Your task to perform on an android device: toggle wifi Image 0: 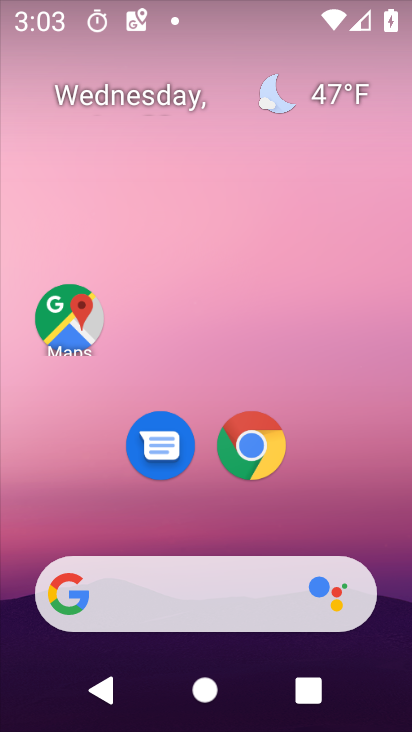
Step 0: drag from (366, 275) to (406, 5)
Your task to perform on an android device: toggle wifi Image 1: 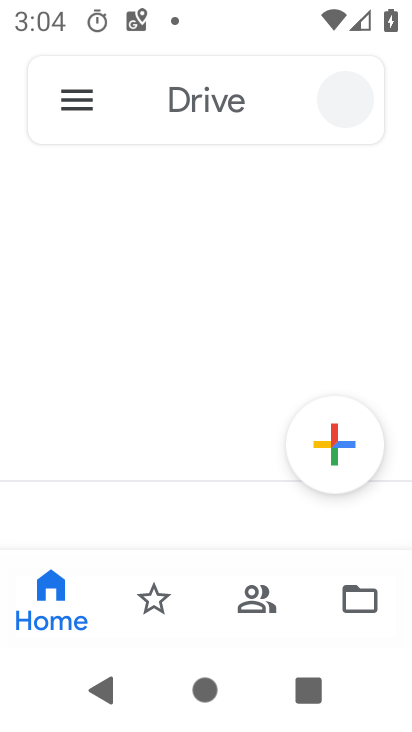
Step 1: press home button
Your task to perform on an android device: toggle wifi Image 2: 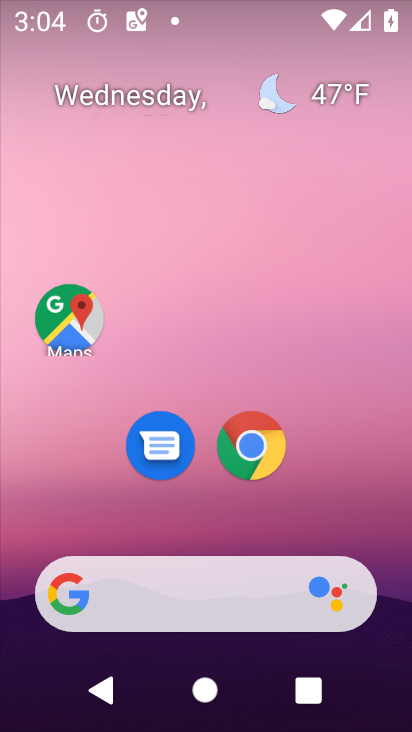
Step 2: drag from (347, 528) to (383, 3)
Your task to perform on an android device: toggle wifi Image 3: 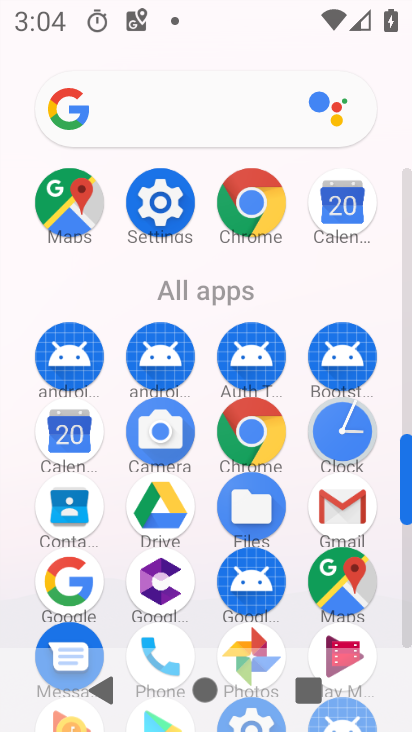
Step 3: click (164, 203)
Your task to perform on an android device: toggle wifi Image 4: 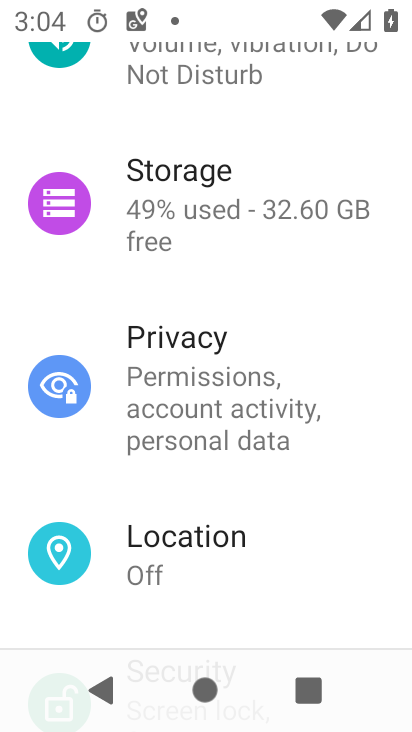
Step 4: drag from (323, 148) to (275, 451)
Your task to perform on an android device: toggle wifi Image 5: 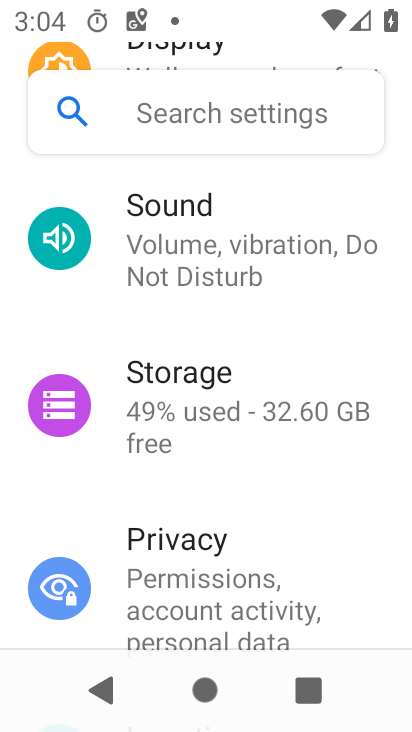
Step 5: drag from (305, 226) to (299, 553)
Your task to perform on an android device: toggle wifi Image 6: 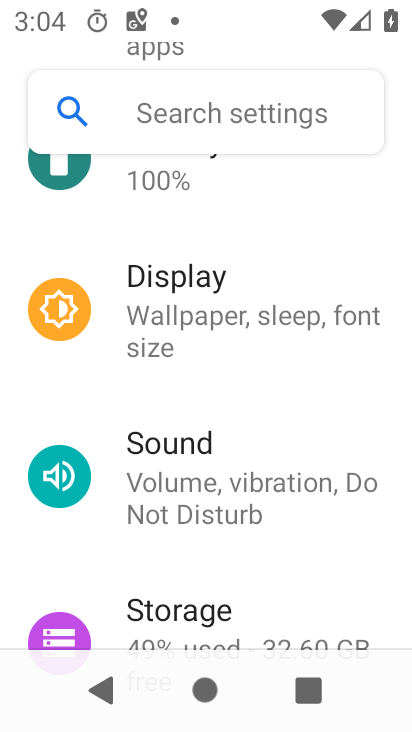
Step 6: drag from (330, 264) to (295, 534)
Your task to perform on an android device: toggle wifi Image 7: 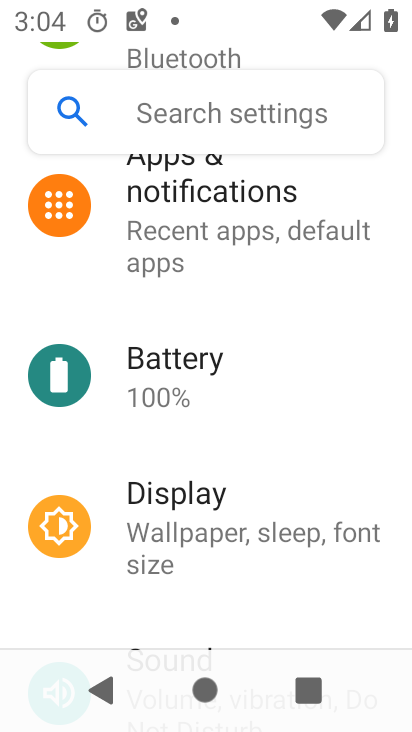
Step 7: drag from (313, 317) to (300, 539)
Your task to perform on an android device: toggle wifi Image 8: 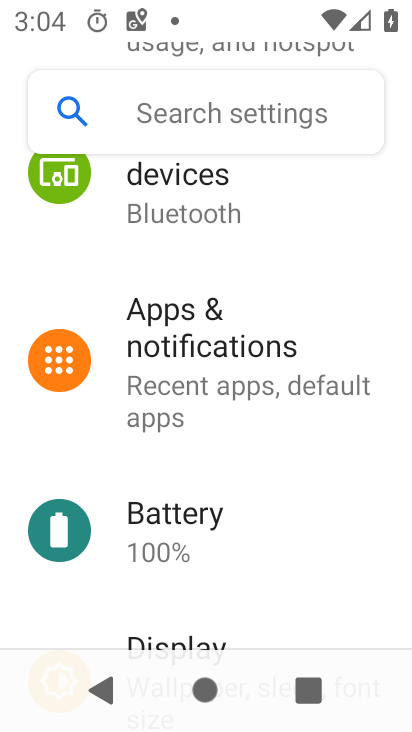
Step 8: drag from (307, 292) to (309, 560)
Your task to perform on an android device: toggle wifi Image 9: 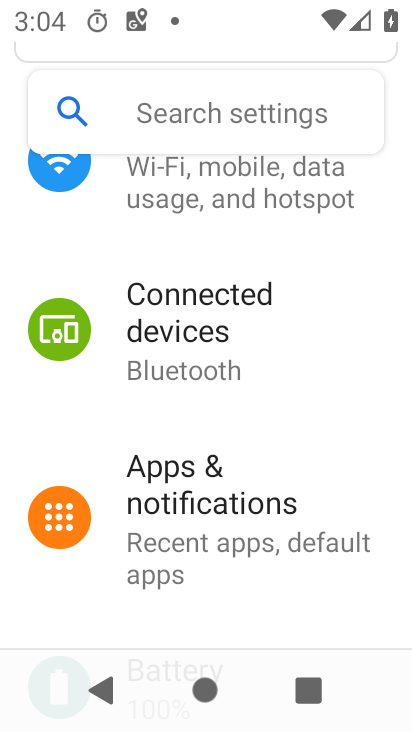
Step 9: drag from (310, 260) to (306, 521)
Your task to perform on an android device: toggle wifi Image 10: 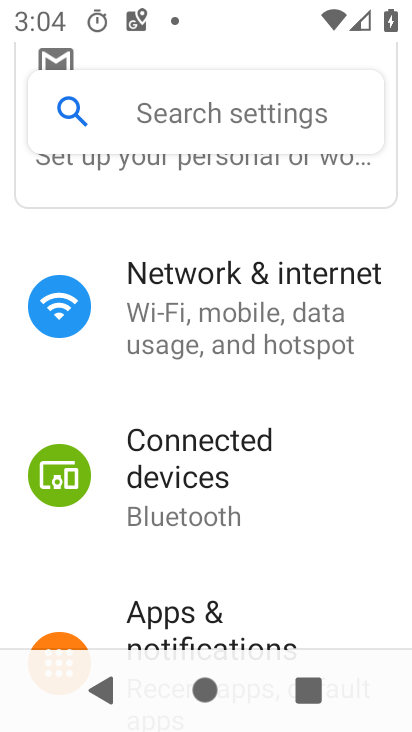
Step 10: click (222, 311)
Your task to perform on an android device: toggle wifi Image 11: 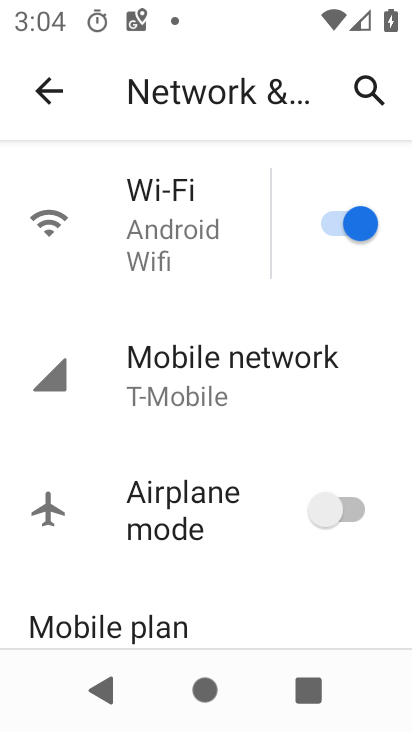
Step 11: click (344, 228)
Your task to perform on an android device: toggle wifi Image 12: 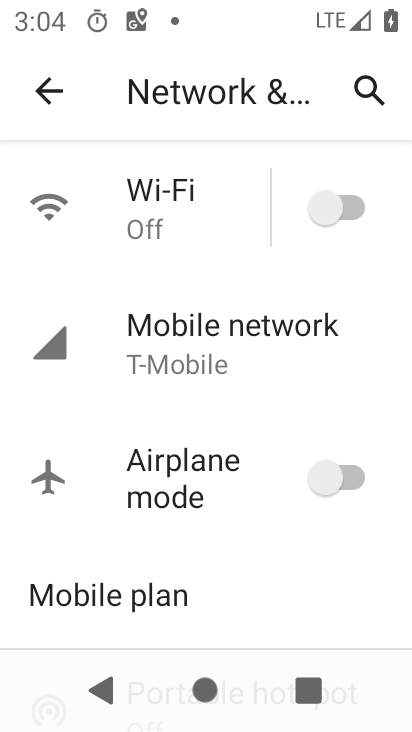
Step 12: task complete